Your task to perform on an android device: star an email in the gmail app Image 0: 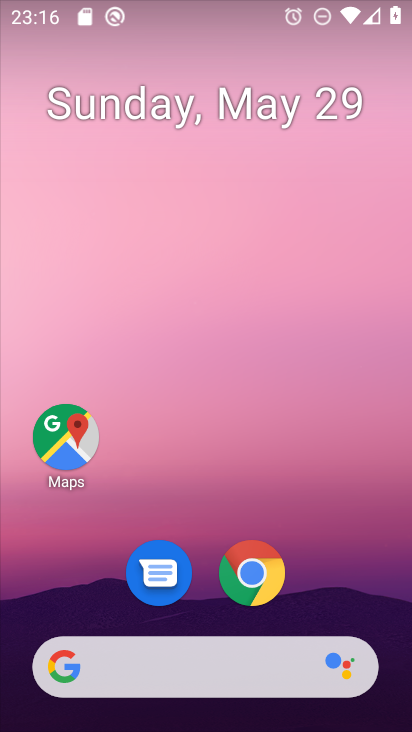
Step 0: click (227, 668)
Your task to perform on an android device: star an email in the gmail app Image 1: 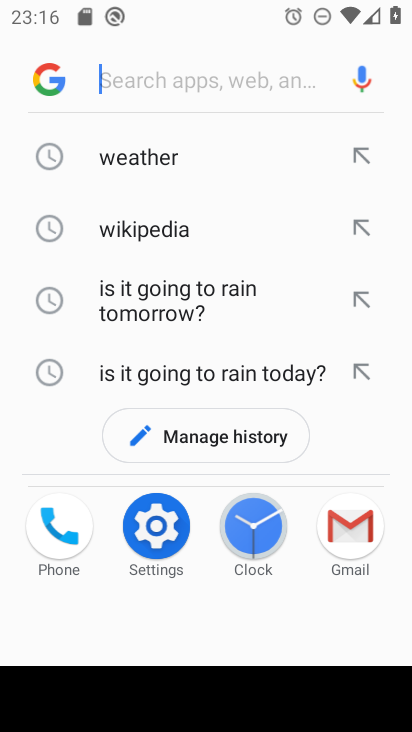
Step 1: type "ebay"
Your task to perform on an android device: star an email in the gmail app Image 2: 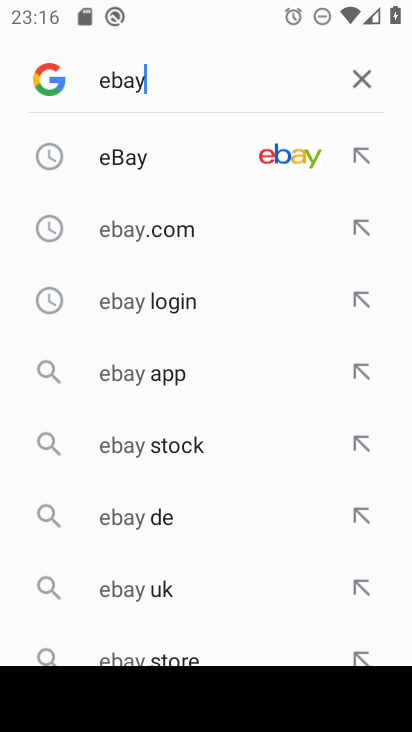
Step 2: click (139, 148)
Your task to perform on an android device: star an email in the gmail app Image 3: 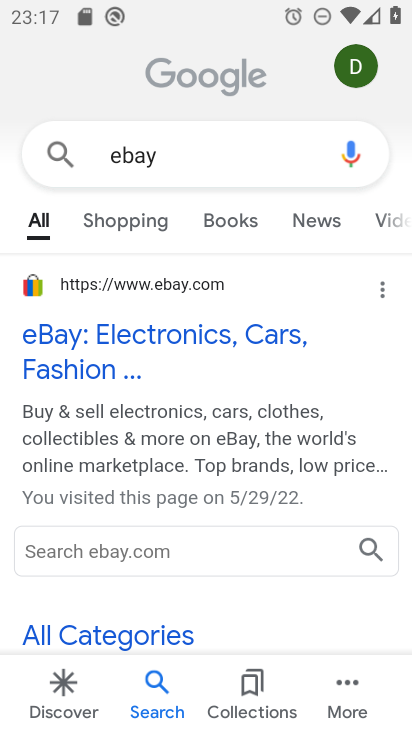
Step 3: click (77, 343)
Your task to perform on an android device: star an email in the gmail app Image 4: 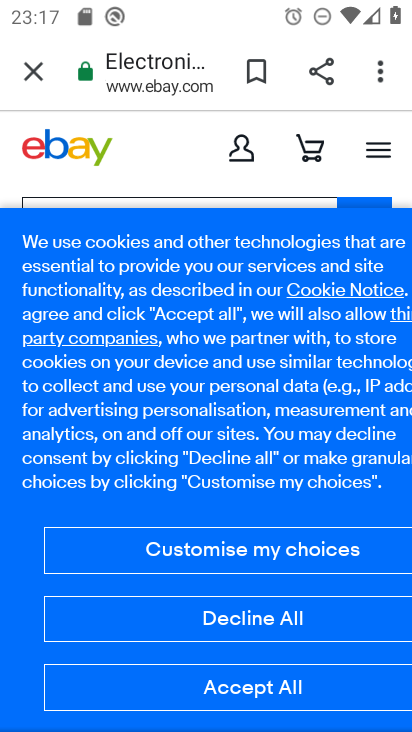
Step 4: task complete